Your task to perform on an android device: Open the web browser Image 0: 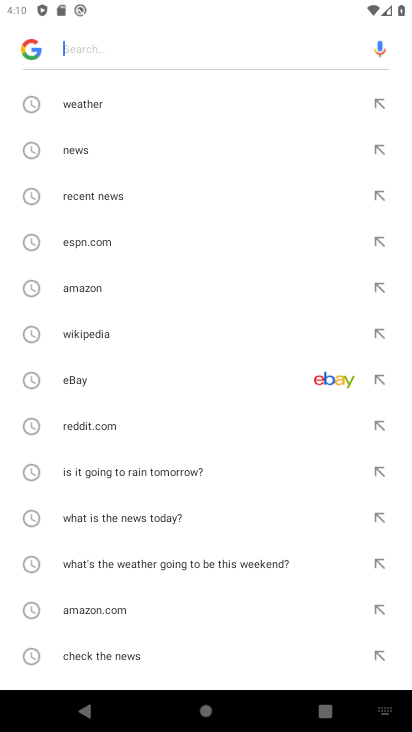
Step 0: press home button
Your task to perform on an android device: Open the web browser Image 1: 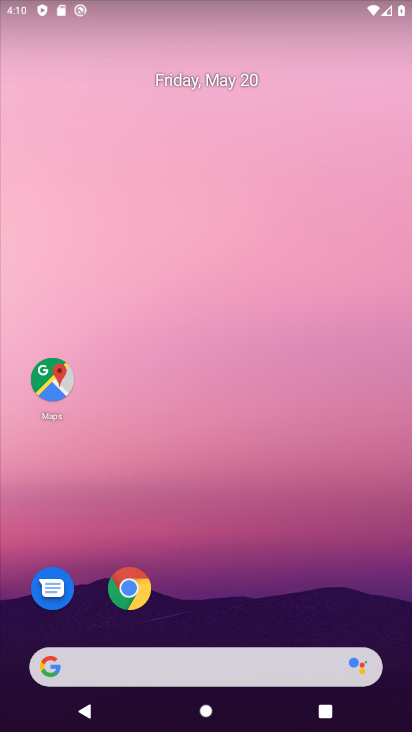
Step 1: drag from (198, 576) to (275, 104)
Your task to perform on an android device: Open the web browser Image 2: 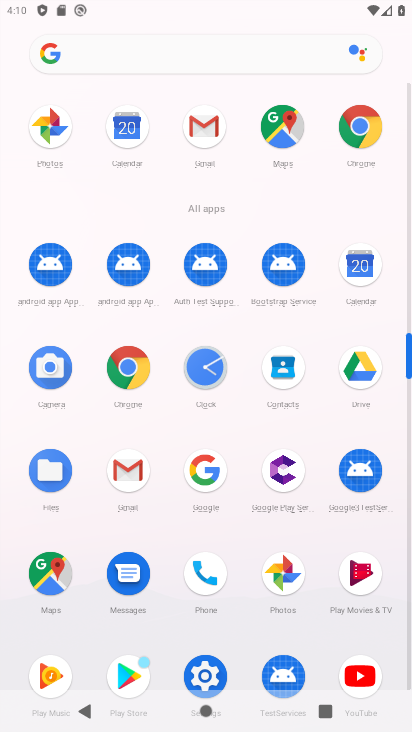
Step 2: click (128, 368)
Your task to perform on an android device: Open the web browser Image 3: 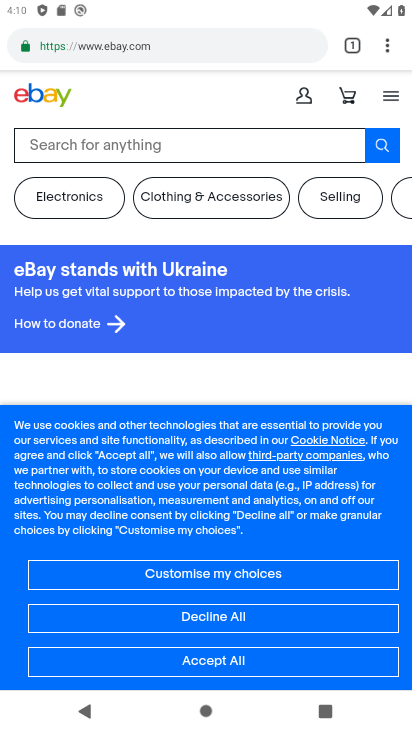
Step 3: click (202, 46)
Your task to perform on an android device: Open the web browser Image 4: 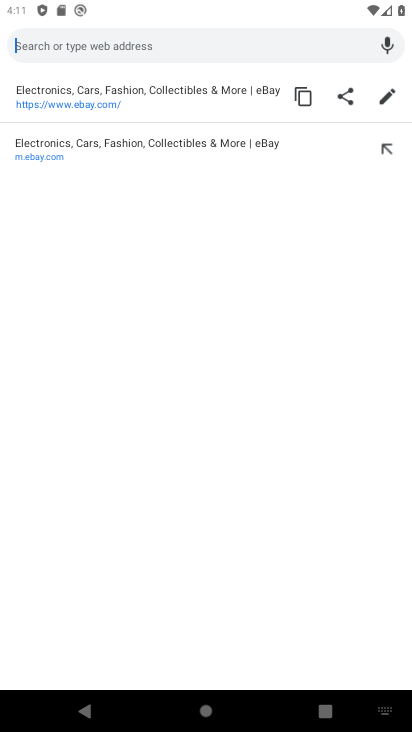
Step 4: type " web browser"
Your task to perform on an android device: Open the web browser Image 5: 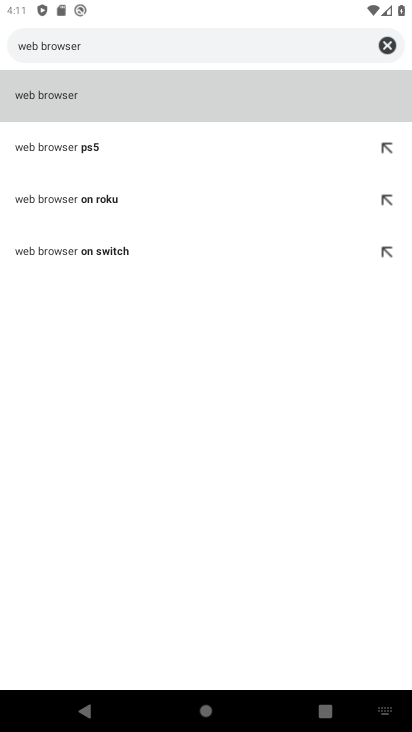
Step 5: click (52, 96)
Your task to perform on an android device: Open the web browser Image 6: 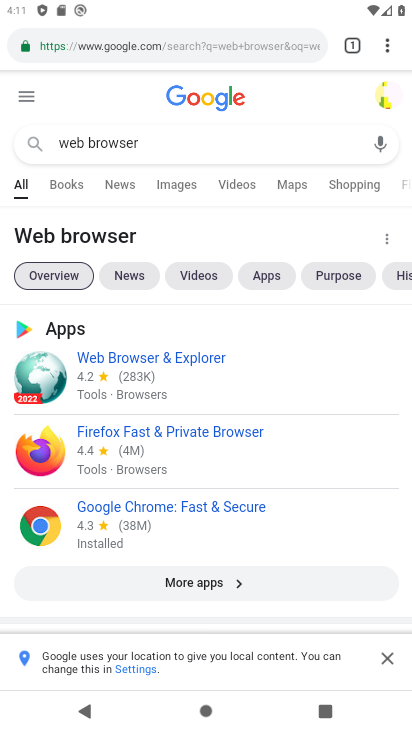
Step 6: click (50, 239)
Your task to perform on an android device: Open the web browser Image 7: 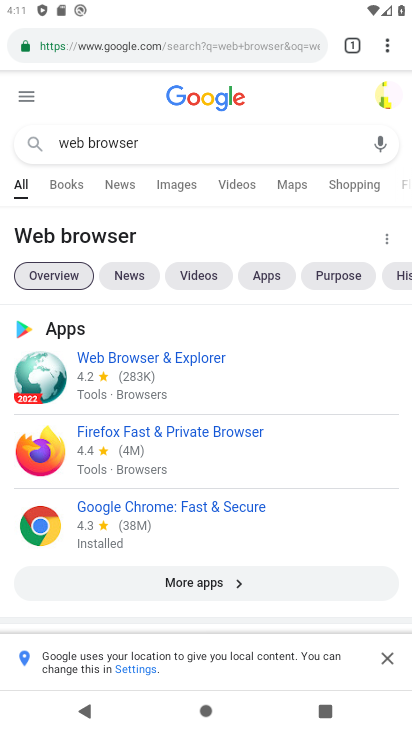
Step 7: task complete